Your task to perform on an android device: turn off smart reply in the gmail app Image 0: 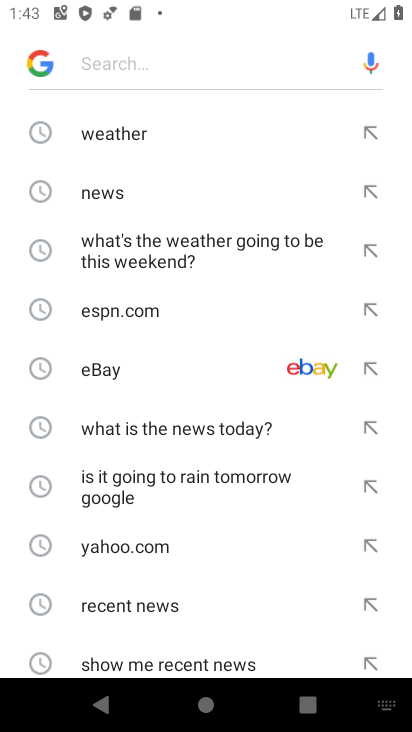
Step 0: press back button
Your task to perform on an android device: turn off smart reply in the gmail app Image 1: 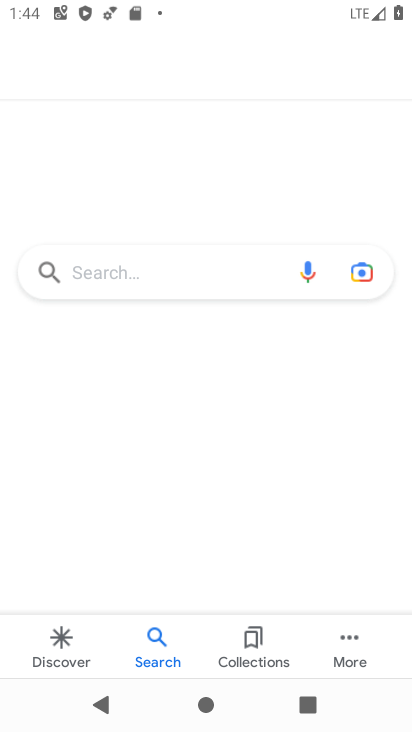
Step 1: press back button
Your task to perform on an android device: turn off smart reply in the gmail app Image 2: 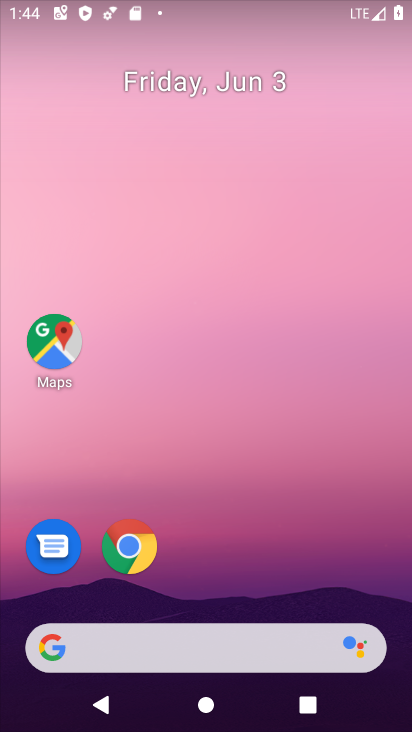
Step 2: drag from (210, 619) to (338, 2)
Your task to perform on an android device: turn off smart reply in the gmail app Image 3: 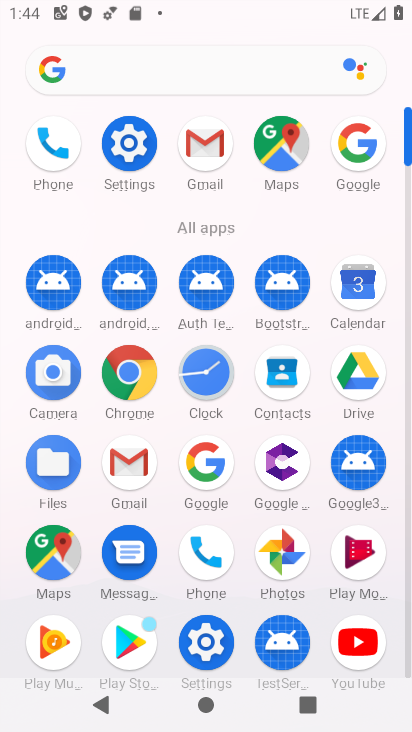
Step 3: click (124, 465)
Your task to perform on an android device: turn off smart reply in the gmail app Image 4: 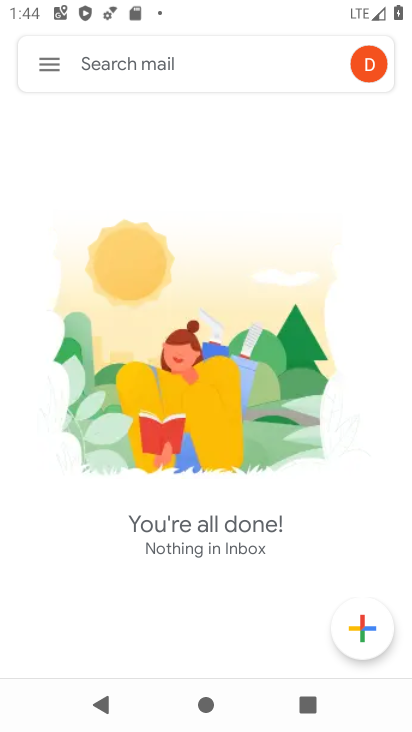
Step 4: click (41, 68)
Your task to perform on an android device: turn off smart reply in the gmail app Image 5: 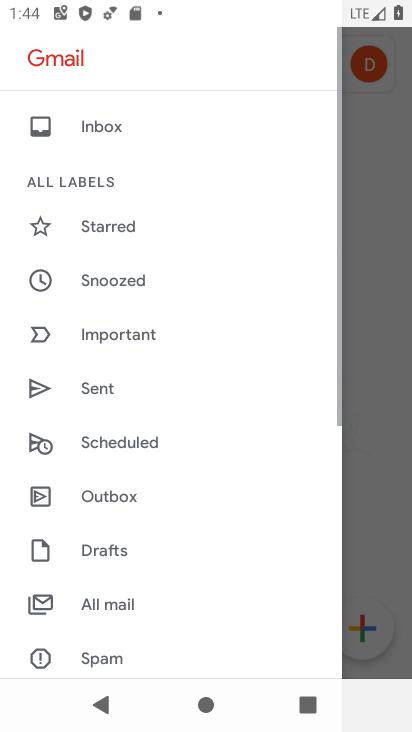
Step 5: drag from (135, 564) to (117, 20)
Your task to perform on an android device: turn off smart reply in the gmail app Image 6: 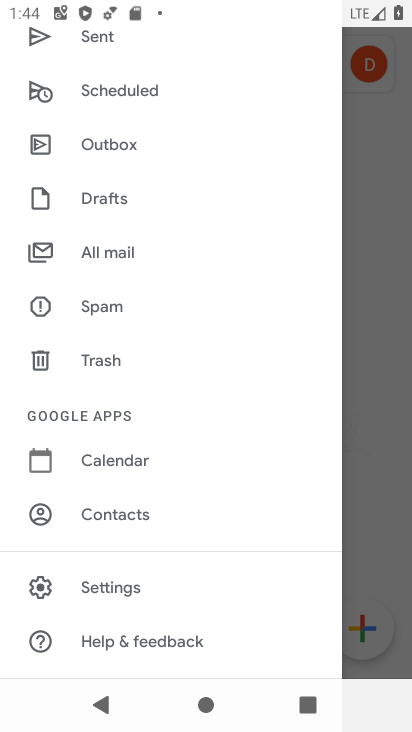
Step 6: click (111, 590)
Your task to perform on an android device: turn off smart reply in the gmail app Image 7: 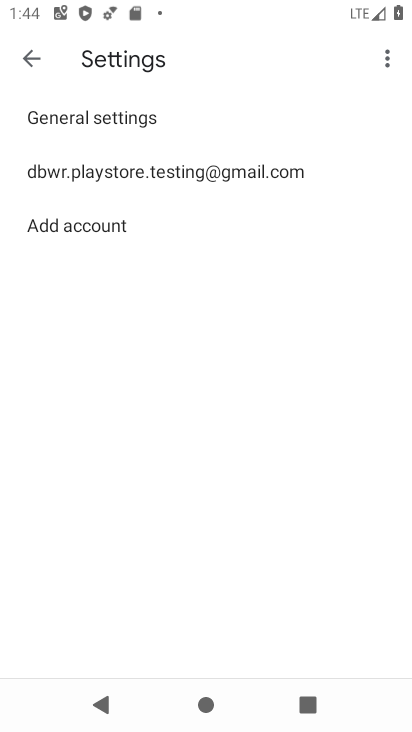
Step 7: click (120, 157)
Your task to perform on an android device: turn off smart reply in the gmail app Image 8: 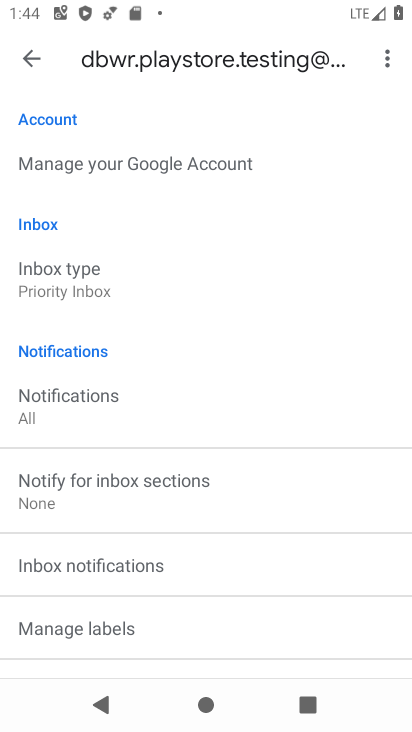
Step 8: drag from (140, 326) to (130, 65)
Your task to perform on an android device: turn off smart reply in the gmail app Image 9: 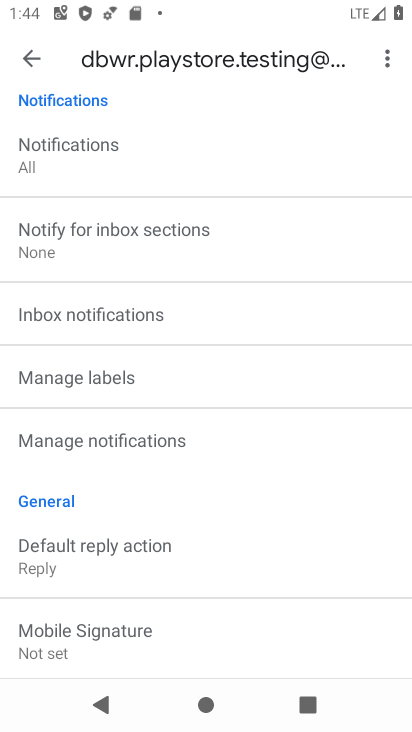
Step 9: drag from (194, 593) to (158, 58)
Your task to perform on an android device: turn off smart reply in the gmail app Image 10: 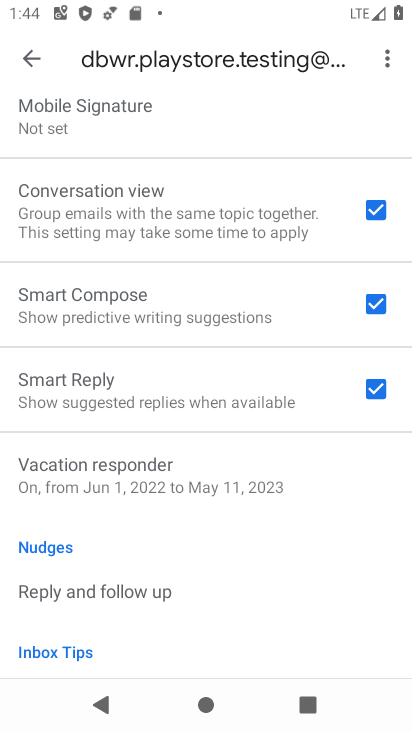
Step 10: click (269, 408)
Your task to perform on an android device: turn off smart reply in the gmail app Image 11: 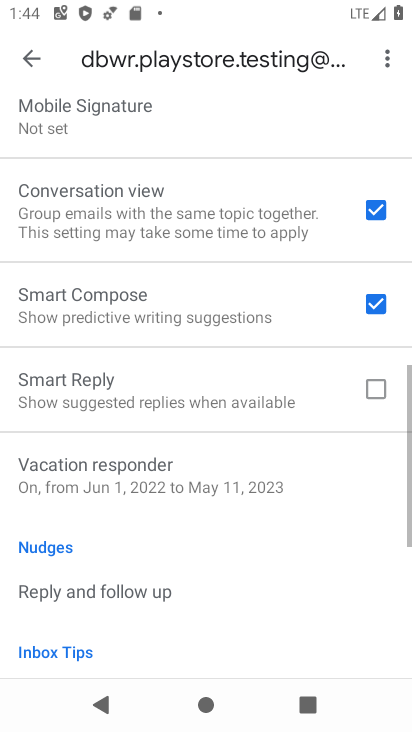
Step 11: task complete